Your task to perform on an android device: Open the web browser Image 0: 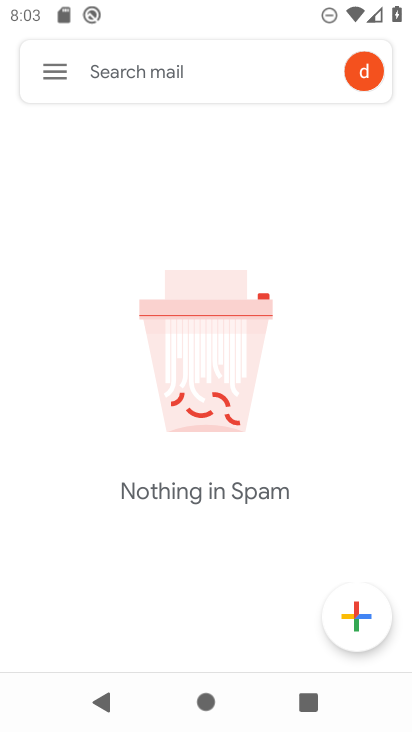
Step 0: press home button
Your task to perform on an android device: Open the web browser Image 1: 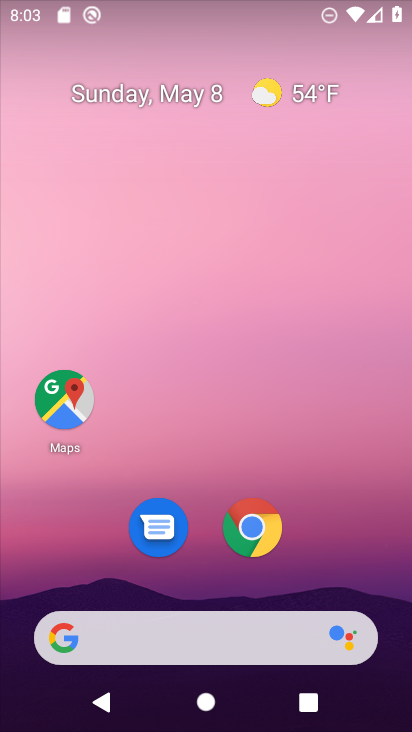
Step 1: drag from (324, 539) to (274, 103)
Your task to perform on an android device: Open the web browser Image 2: 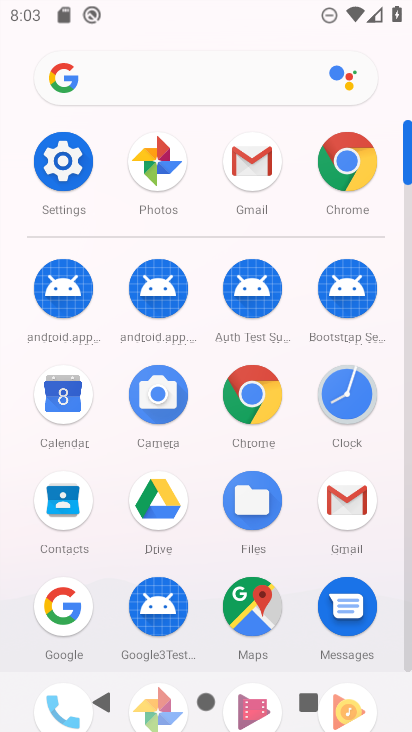
Step 2: click (254, 385)
Your task to perform on an android device: Open the web browser Image 3: 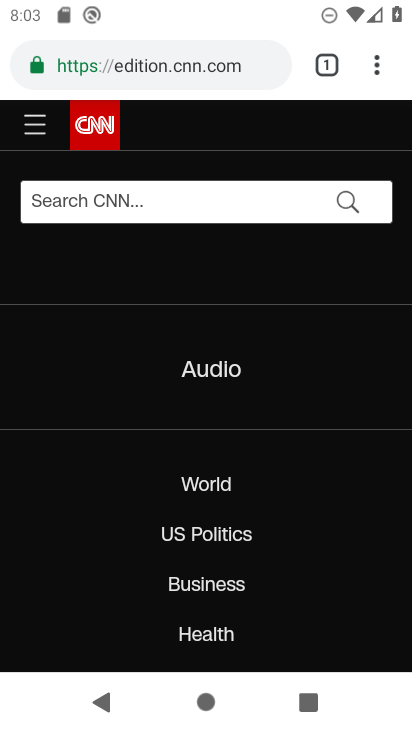
Step 3: task complete